Your task to perform on an android device: Search for sushi restaurants on Maps Image 0: 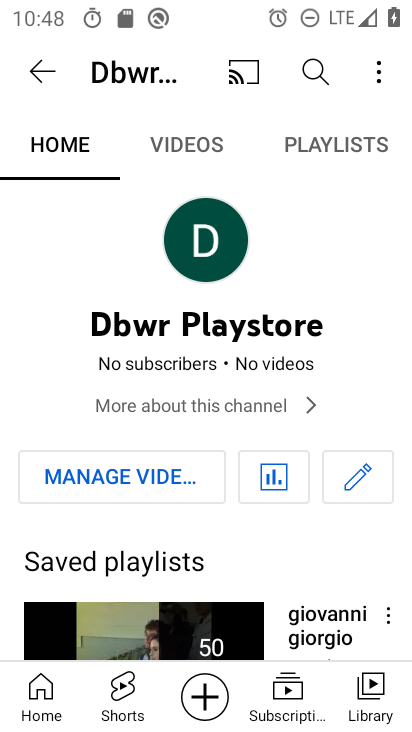
Step 0: press home button
Your task to perform on an android device: Search for sushi restaurants on Maps Image 1: 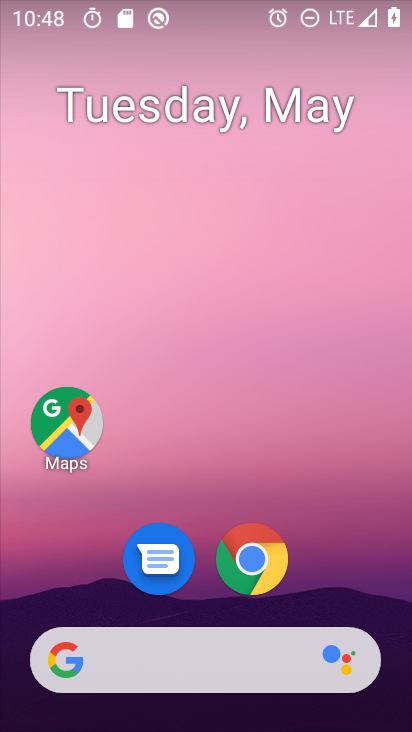
Step 1: drag from (386, 643) to (270, 89)
Your task to perform on an android device: Search for sushi restaurants on Maps Image 2: 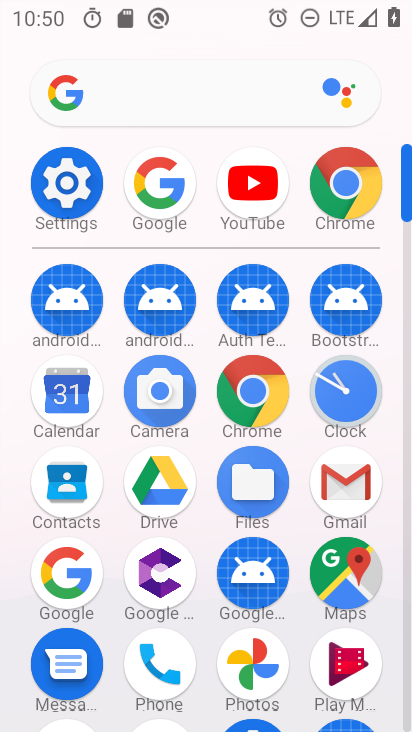
Step 2: click (358, 555)
Your task to perform on an android device: Search for sushi restaurants on Maps Image 3: 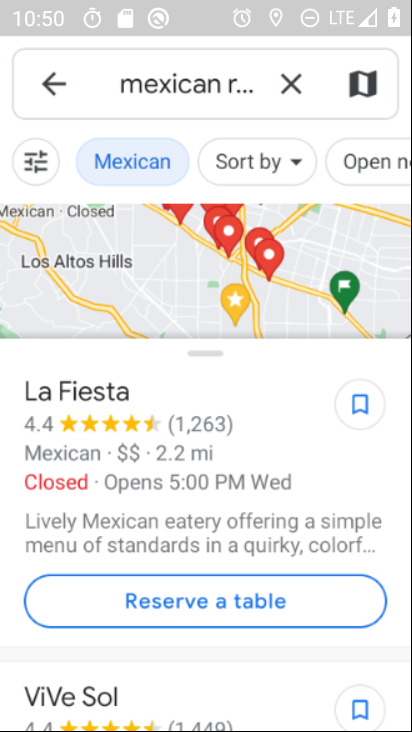
Step 3: click (289, 86)
Your task to perform on an android device: Search for sushi restaurants on Maps Image 4: 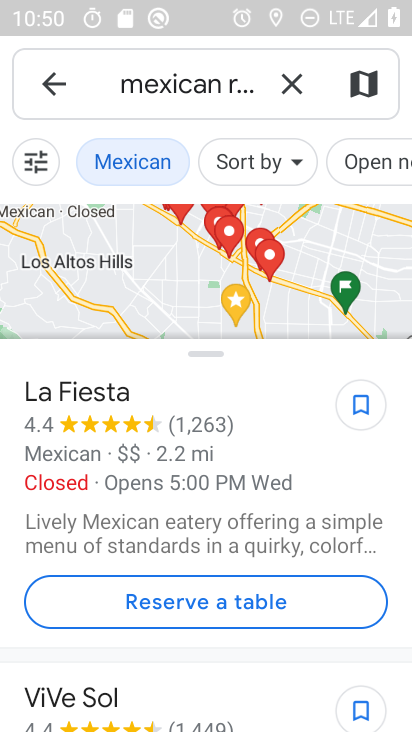
Step 4: click (296, 82)
Your task to perform on an android device: Search for sushi restaurants on Maps Image 5: 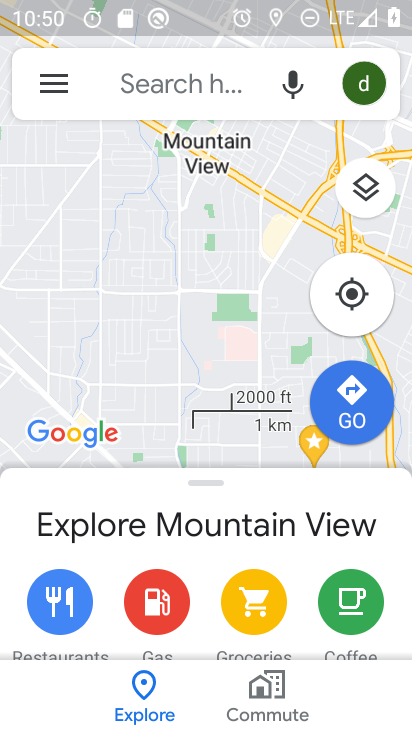
Step 5: click (188, 85)
Your task to perform on an android device: Search for sushi restaurants on Maps Image 6: 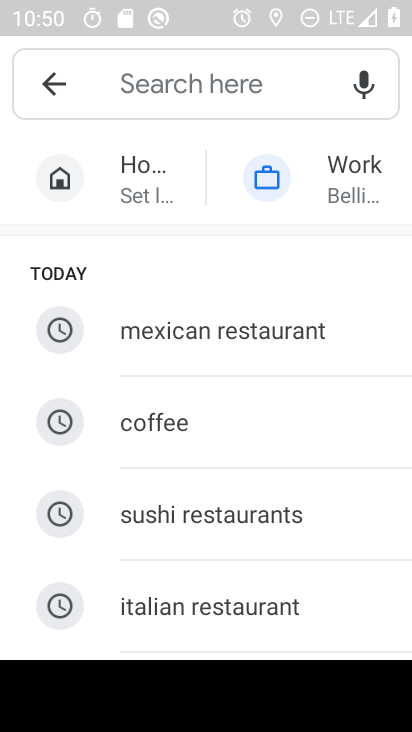
Step 6: click (201, 534)
Your task to perform on an android device: Search for sushi restaurants on Maps Image 7: 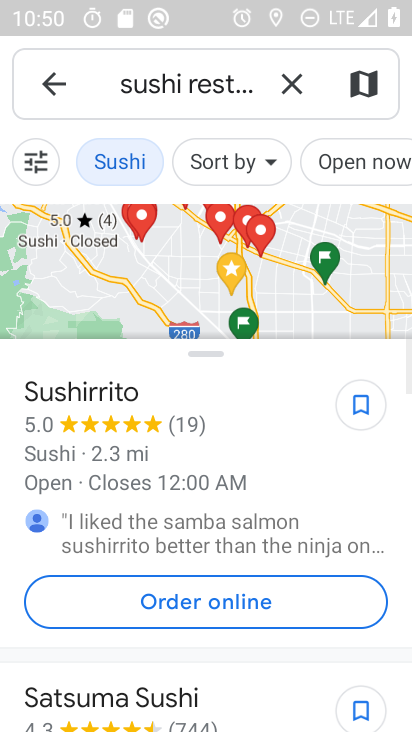
Step 7: task complete